Your task to perform on an android device: Open Reddit.com Image 0: 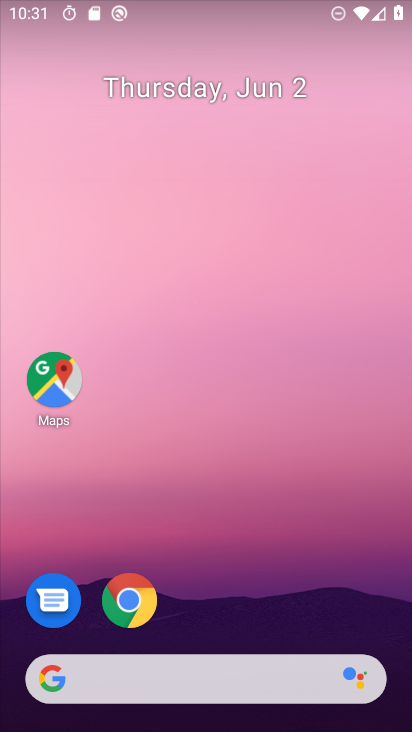
Step 0: drag from (211, 611) to (243, 15)
Your task to perform on an android device: Open Reddit.com Image 1: 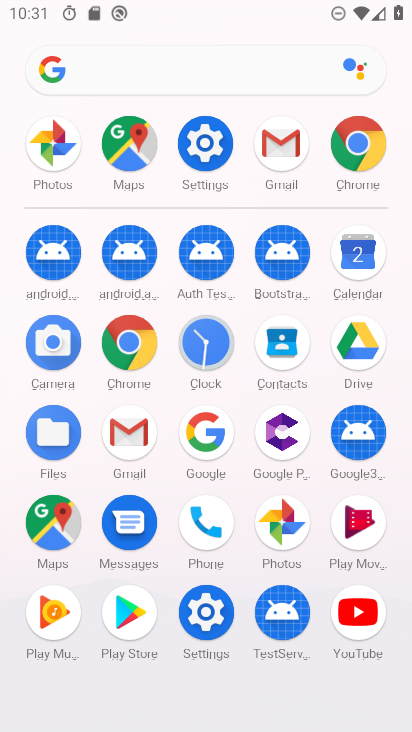
Step 1: click (206, 427)
Your task to perform on an android device: Open Reddit.com Image 2: 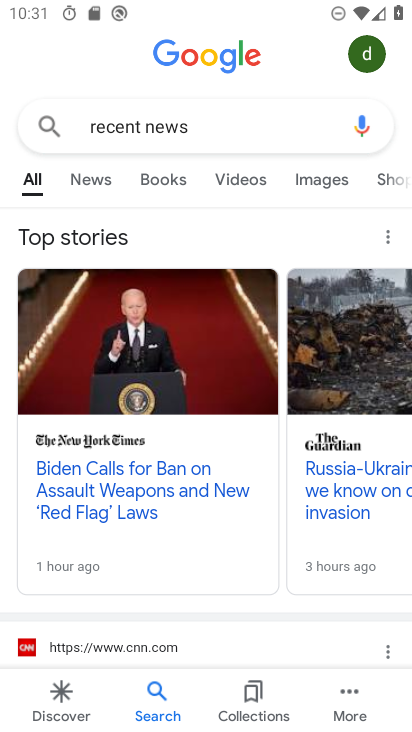
Step 2: click (228, 133)
Your task to perform on an android device: Open Reddit.com Image 3: 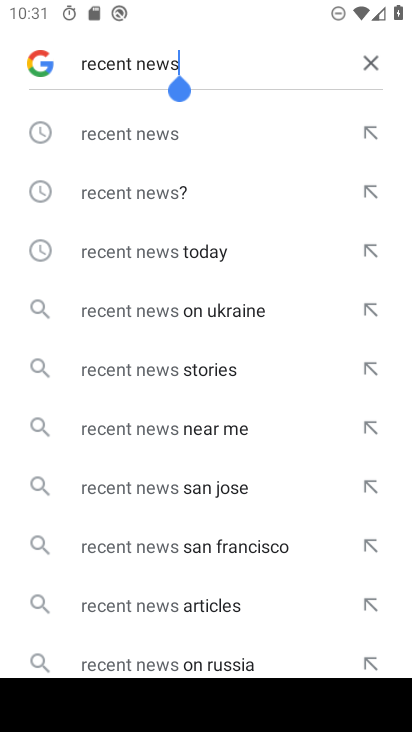
Step 3: click (373, 68)
Your task to perform on an android device: Open Reddit.com Image 4: 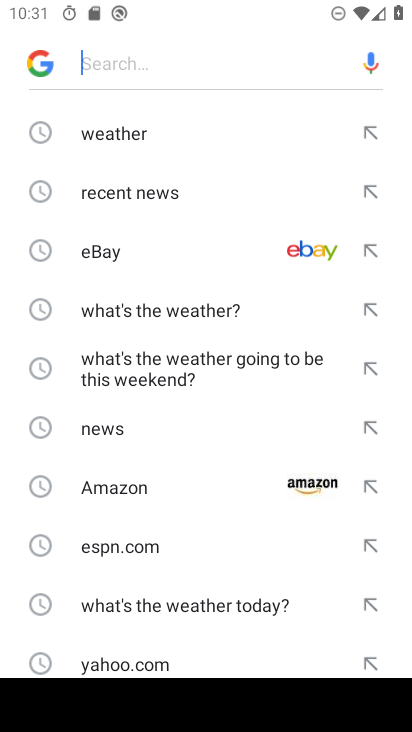
Step 4: type "reddit.com"
Your task to perform on an android device: Open Reddit.com Image 5: 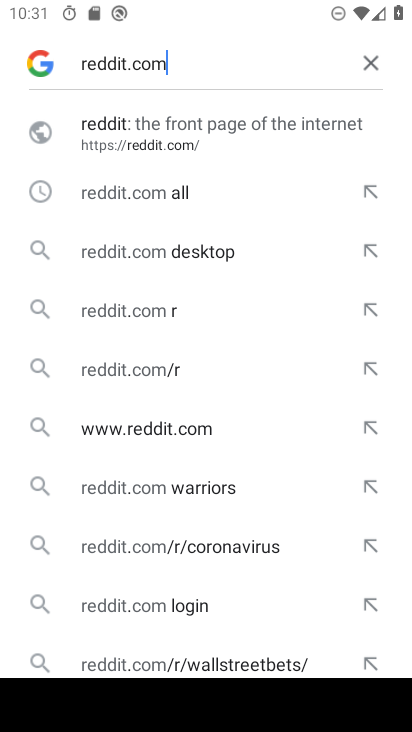
Step 5: click (194, 142)
Your task to perform on an android device: Open Reddit.com Image 6: 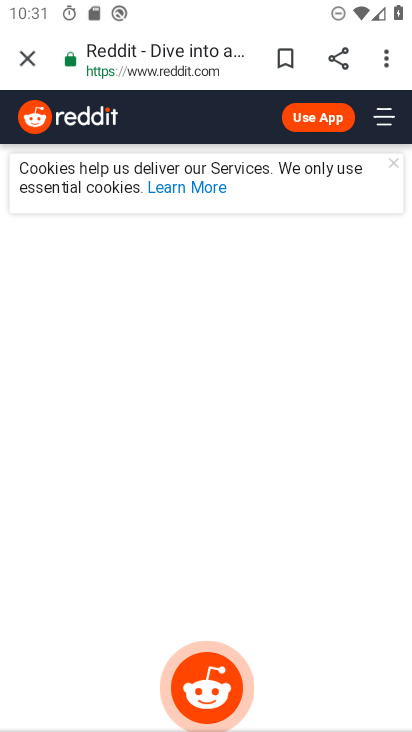
Step 6: task complete